Your task to perform on an android device: Open the Play Movies app and select the watchlist tab. Image 0: 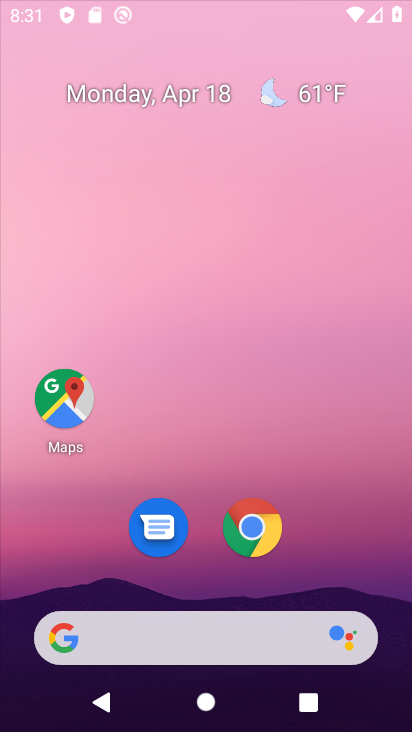
Step 0: click (83, 404)
Your task to perform on an android device: Open the Play Movies app and select the watchlist tab. Image 1: 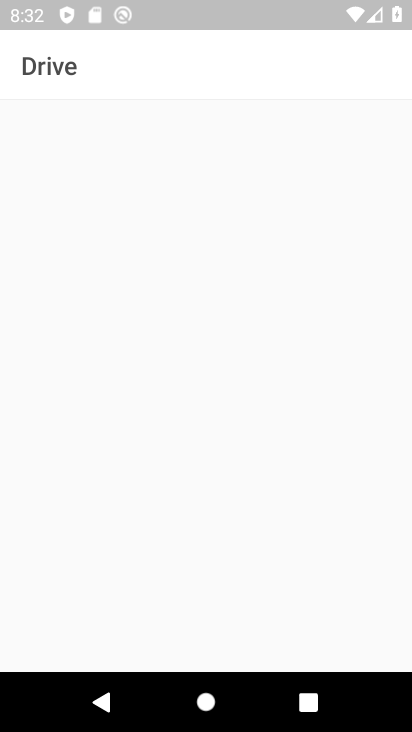
Step 1: press home button
Your task to perform on an android device: Open the Play Movies app and select the watchlist tab. Image 2: 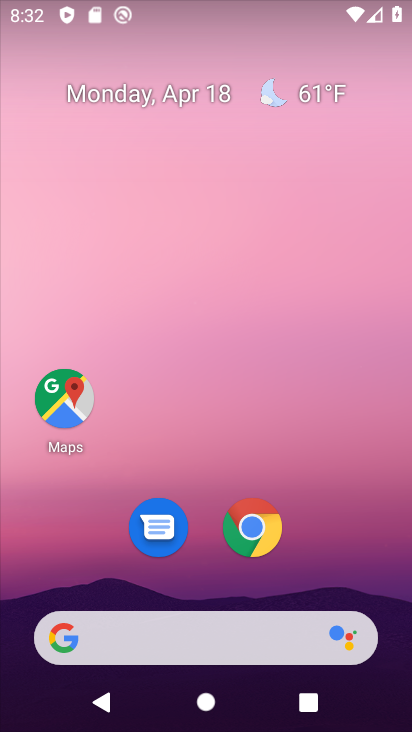
Step 2: drag from (89, 588) to (35, 256)
Your task to perform on an android device: Open the Play Movies app and select the watchlist tab. Image 3: 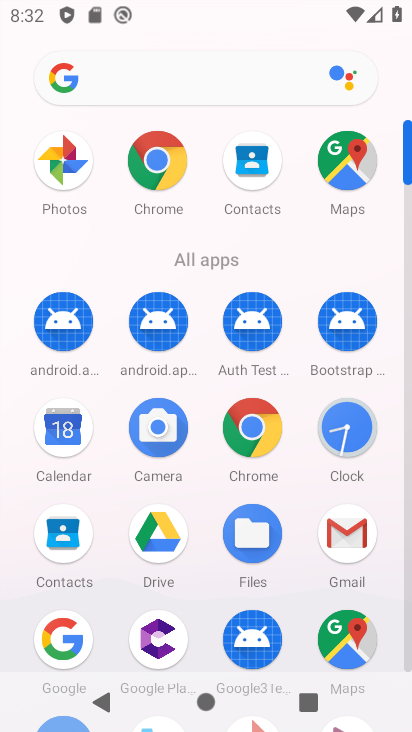
Step 3: drag from (207, 587) to (210, 136)
Your task to perform on an android device: Open the Play Movies app and select the watchlist tab. Image 4: 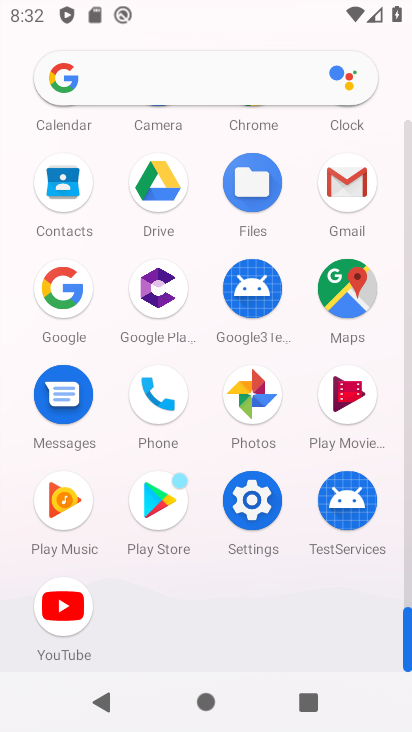
Step 4: click (349, 381)
Your task to perform on an android device: Open the Play Movies app and select the watchlist tab. Image 5: 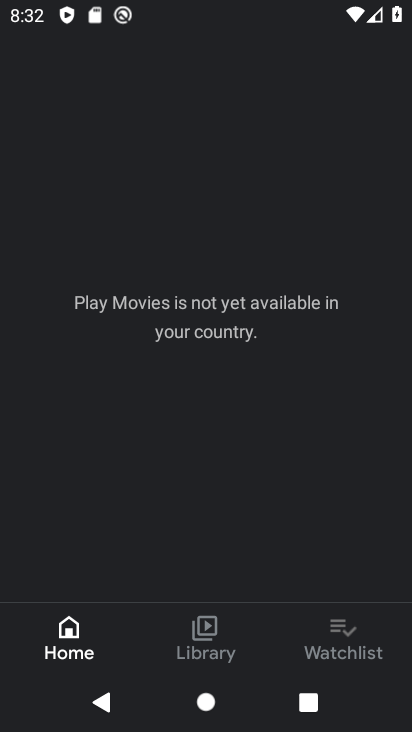
Step 5: click (324, 656)
Your task to perform on an android device: Open the Play Movies app and select the watchlist tab. Image 6: 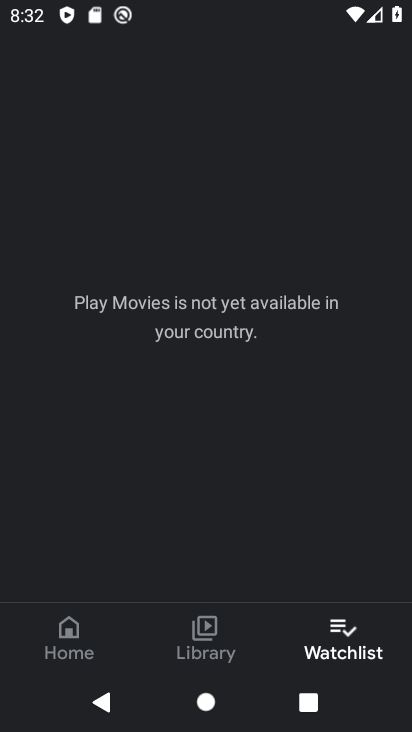
Step 6: task complete